Your task to perform on an android device: turn on improve location accuracy Image 0: 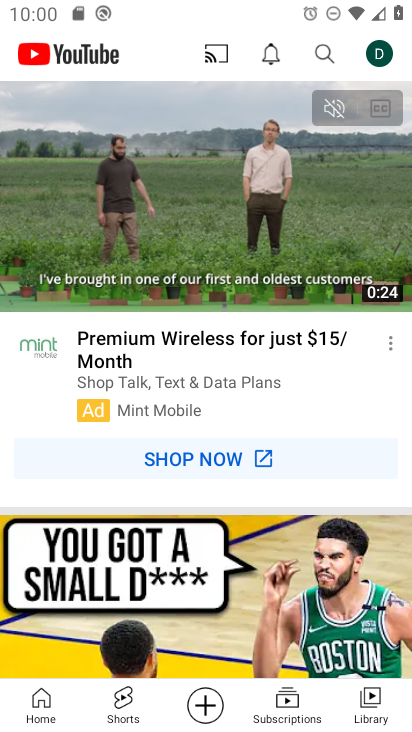
Step 0: press home button
Your task to perform on an android device: turn on improve location accuracy Image 1: 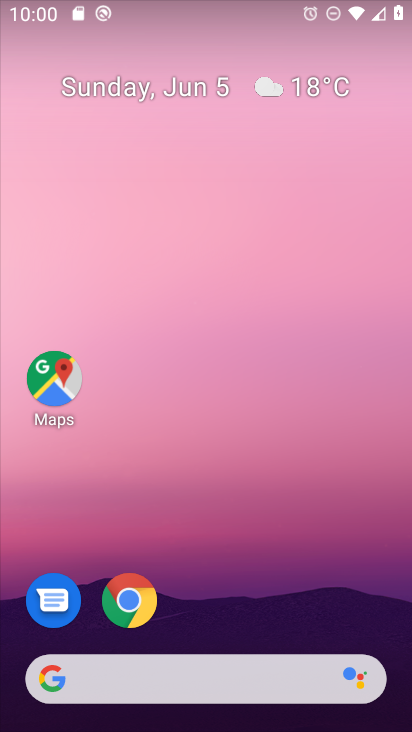
Step 1: drag from (220, 568) to (232, 22)
Your task to perform on an android device: turn on improve location accuracy Image 2: 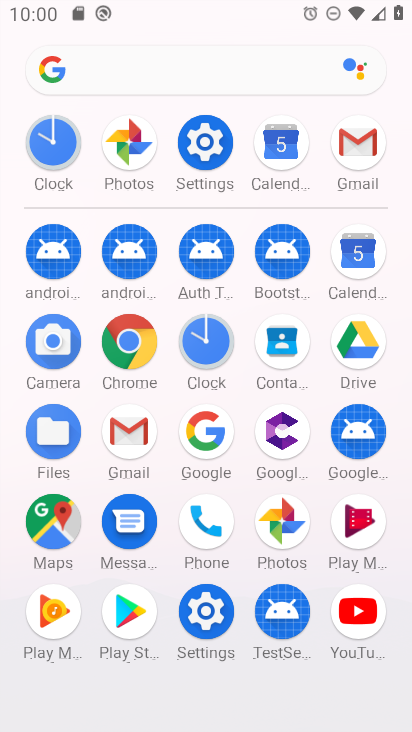
Step 2: click (203, 148)
Your task to perform on an android device: turn on improve location accuracy Image 3: 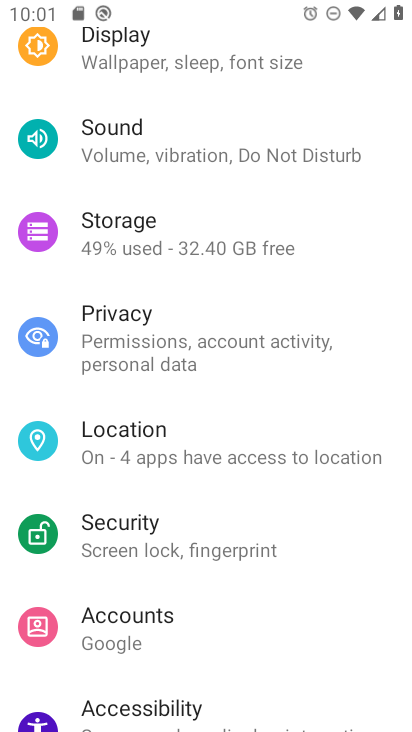
Step 3: click (215, 443)
Your task to perform on an android device: turn on improve location accuracy Image 4: 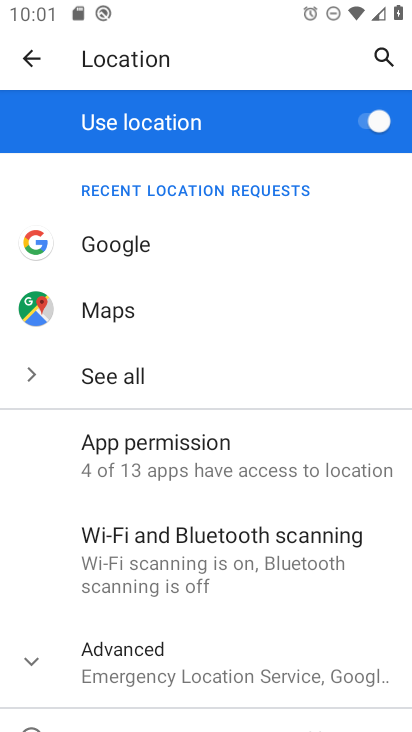
Step 4: click (28, 650)
Your task to perform on an android device: turn on improve location accuracy Image 5: 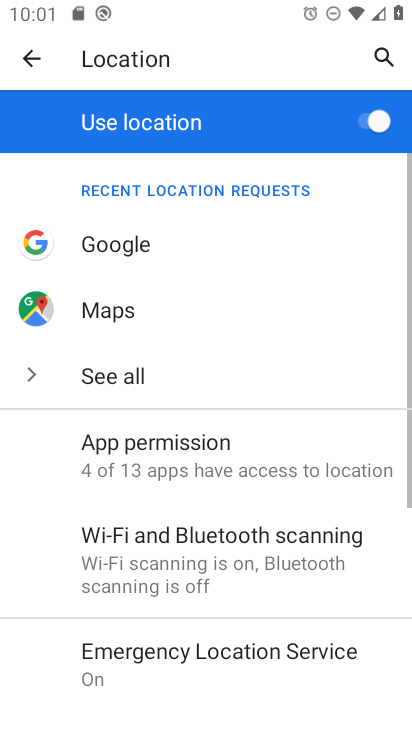
Step 5: drag from (206, 582) to (197, 197)
Your task to perform on an android device: turn on improve location accuracy Image 6: 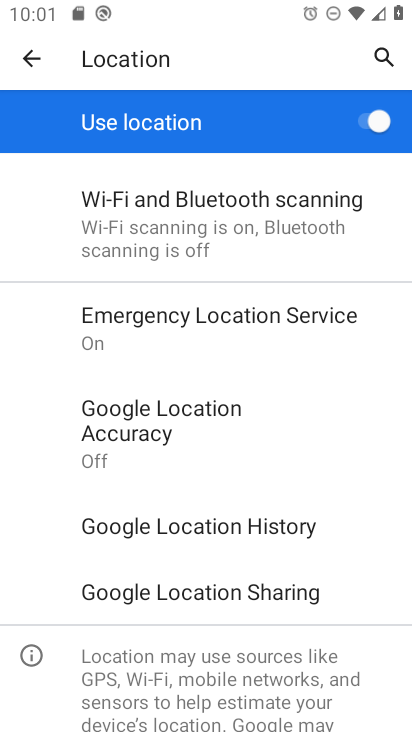
Step 6: click (202, 414)
Your task to perform on an android device: turn on improve location accuracy Image 7: 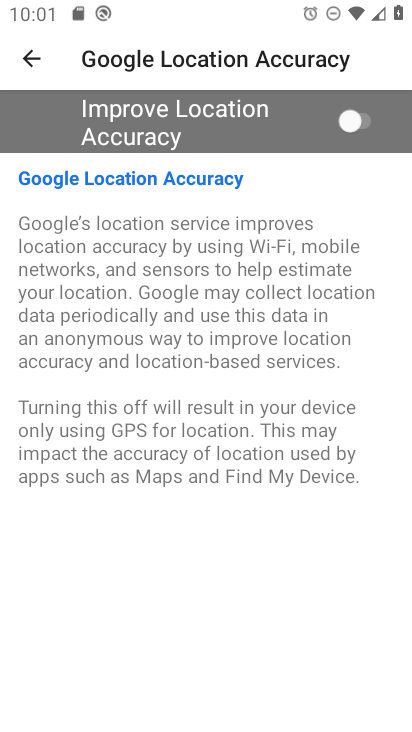
Step 7: click (339, 112)
Your task to perform on an android device: turn on improve location accuracy Image 8: 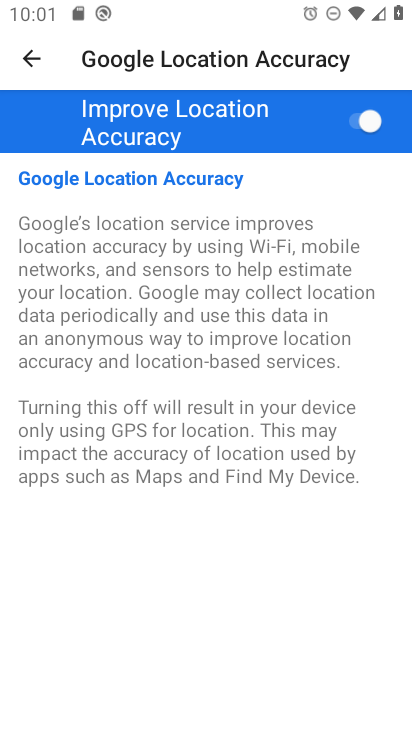
Step 8: task complete